Your task to perform on an android device: See recent photos Image 0: 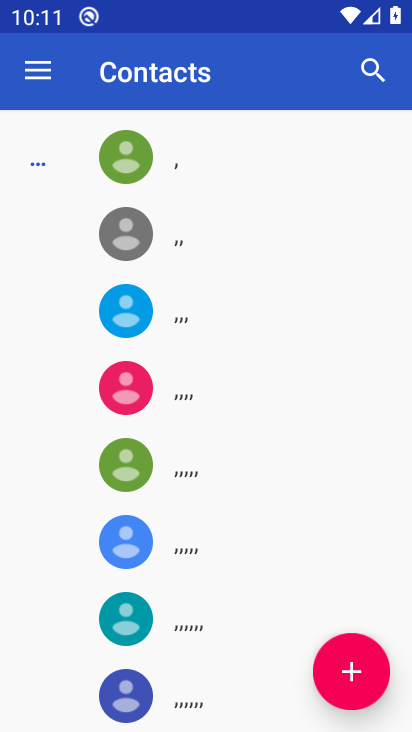
Step 0: press back button
Your task to perform on an android device: See recent photos Image 1: 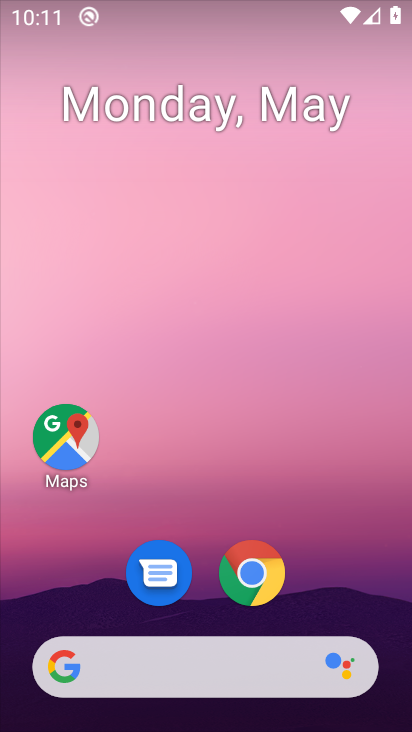
Step 1: drag from (181, 506) to (270, 39)
Your task to perform on an android device: See recent photos Image 2: 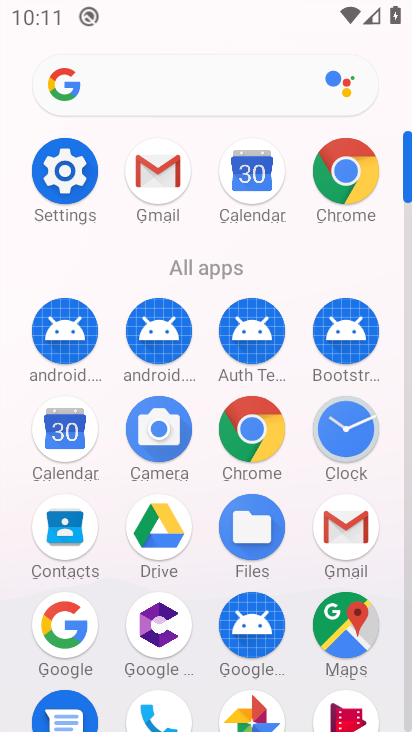
Step 2: click (250, 712)
Your task to perform on an android device: See recent photos Image 3: 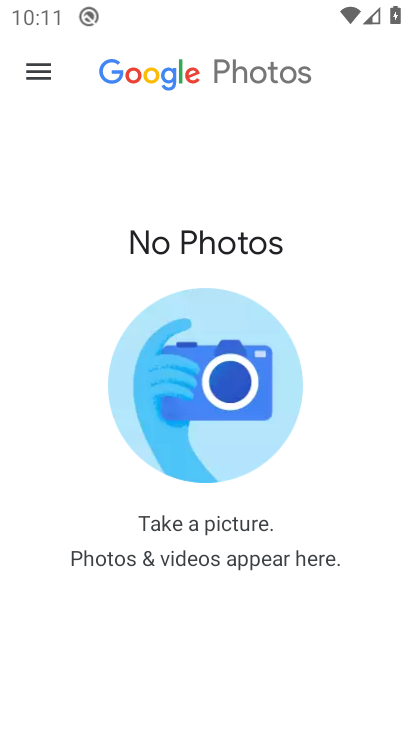
Step 3: task complete